Your task to perform on an android device: check battery use Image 0: 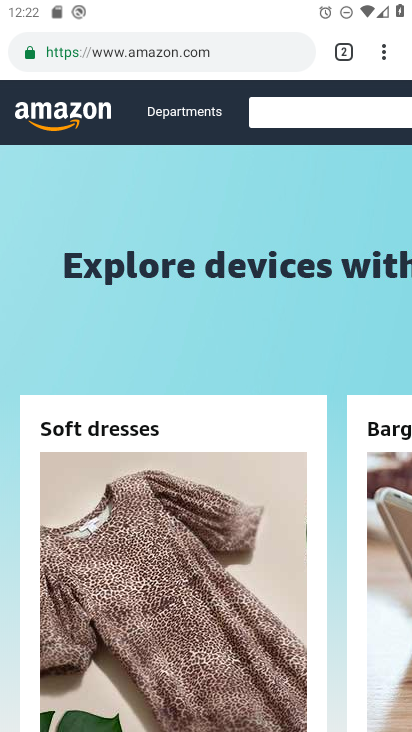
Step 0: press home button
Your task to perform on an android device: check battery use Image 1: 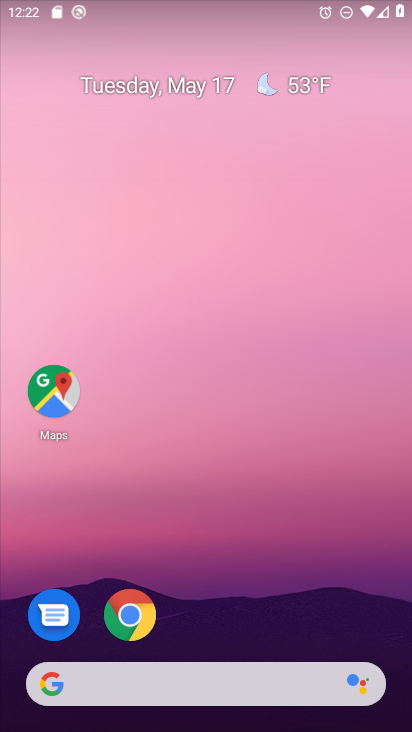
Step 1: drag from (173, 617) to (233, 337)
Your task to perform on an android device: check battery use Image 2: 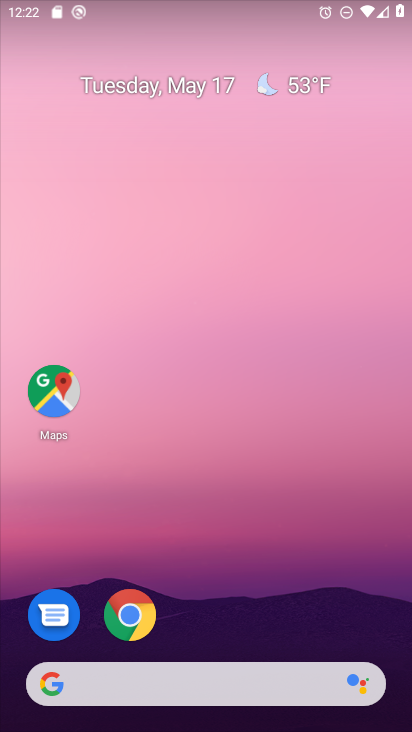
Step 2: drag from (203, 685) to (218, 379)
Your task to perform on an android device: check battery use Image 3: 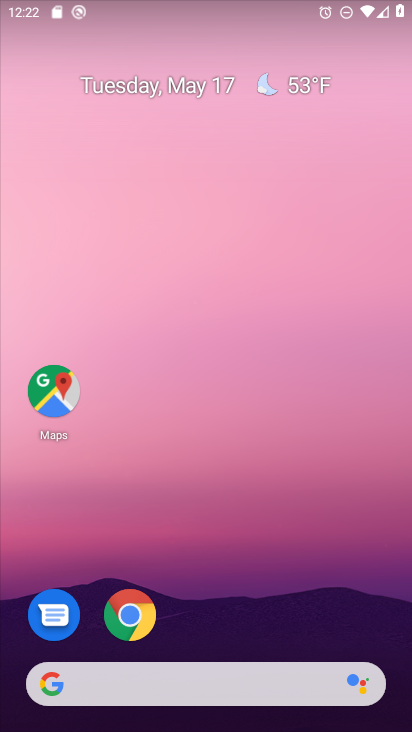
Step 3: drag from (259, 417) to (267, 382)
Your task to perform on an android device: check battery use Image 4: 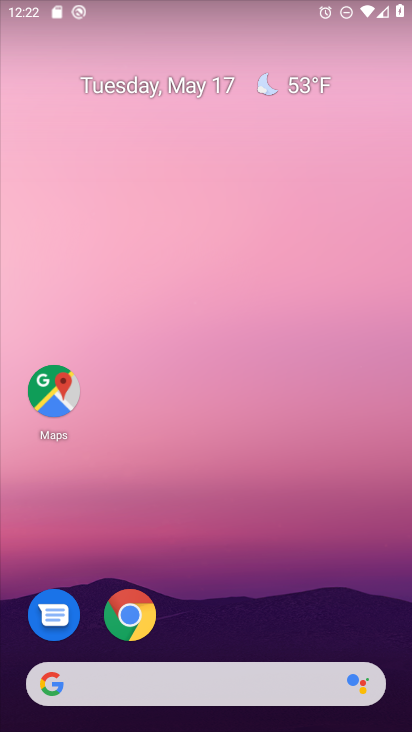
Step 4: drag from (163, 657) to (209, 272)
Your task to perform on an android device: check battery use Image 5: 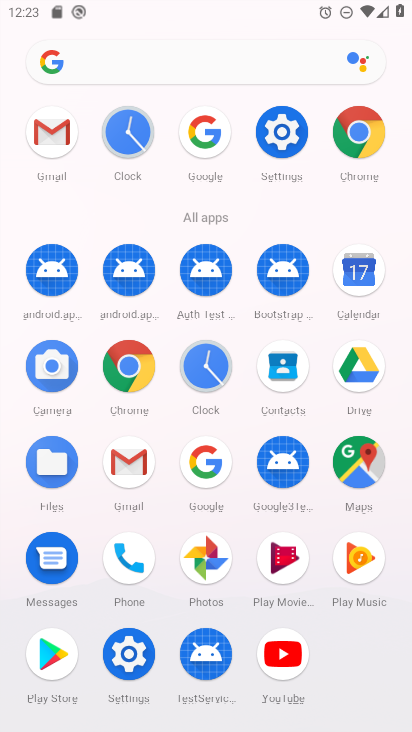
Step 5: click (274, 136)
Your task to perform on an android device: check battery use Image 6: 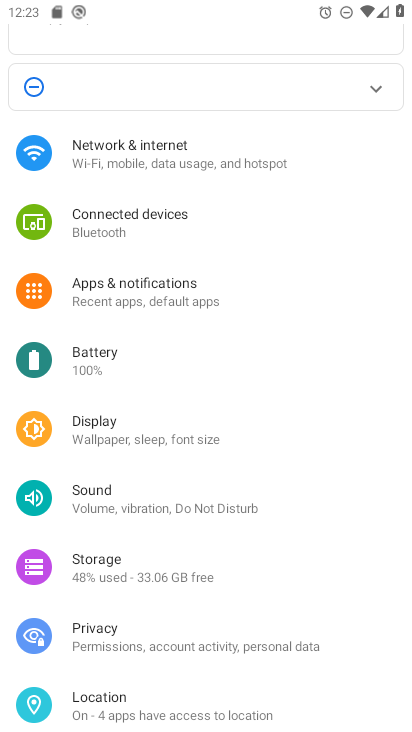
Step 6: click (82, 353)
Your task to perform on an android device: check battery use Image 7: 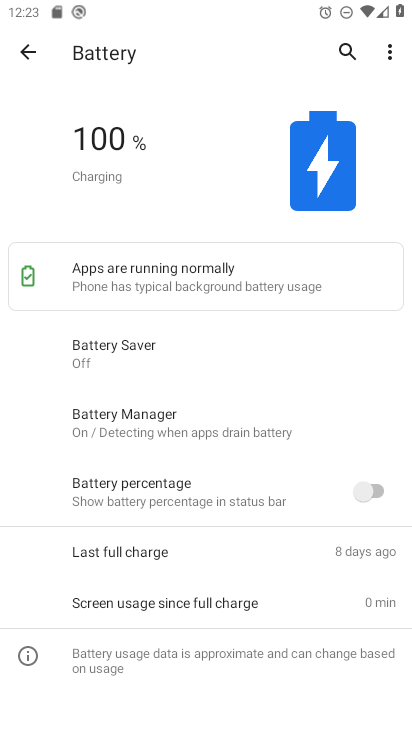
Step 7: click (395, 36)
Your task to perform on an android device: check battery use Image 8: 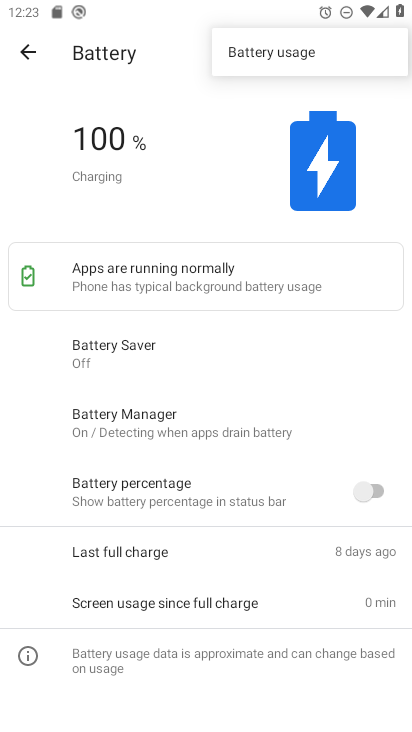
Step 8: drag from (124, 608) to (152, 351)
Your task to perform on an android device: check battery use Image 9: 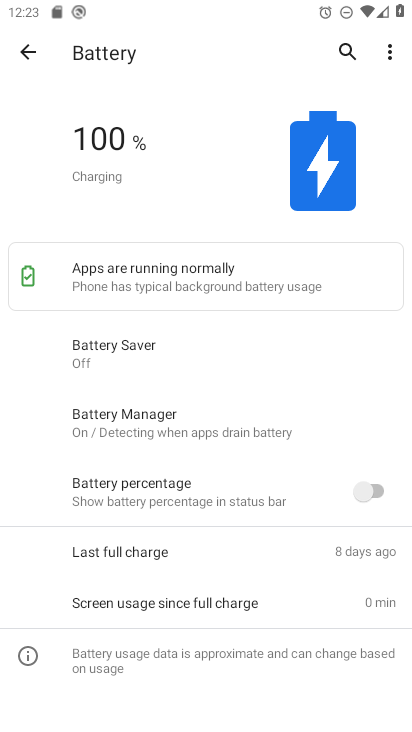
Step 9: click (386, 52)
Your task to perform on an android device: check battery use Image 10: 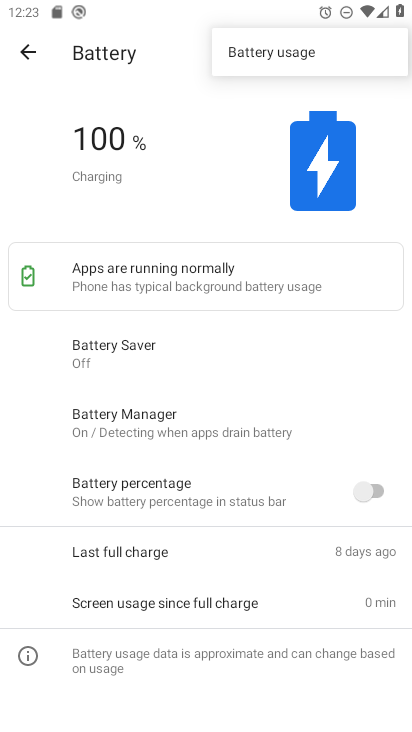
Step 10: click (305, 57)
Your task to perform on an android device: check battery use Image 11: 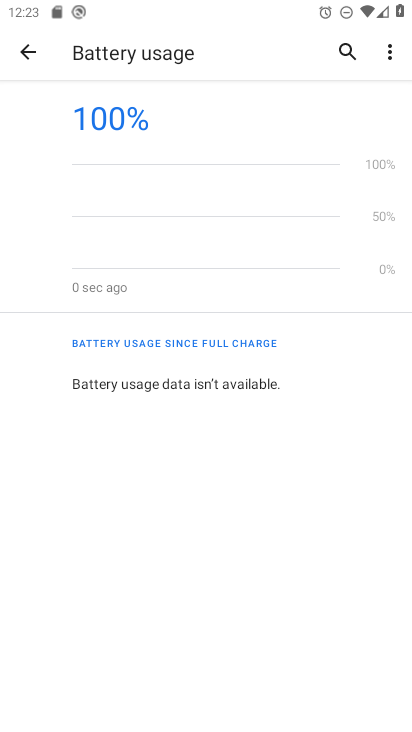
Step 11: task complete